Your task to perform on an android device: Open battery settings Image 0: 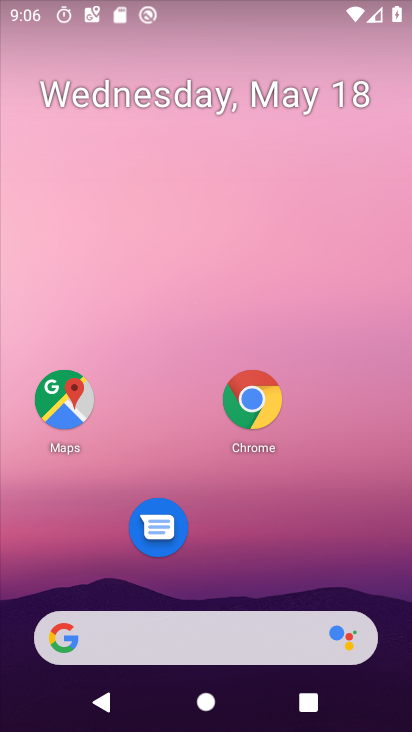
Step 0: drag from (245, 604) to (341, 221)
Your task to perform on an android device: Open battery settings Image 1: 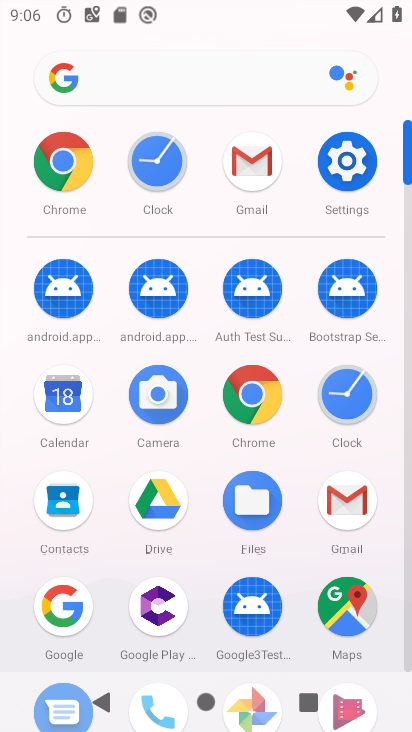
Step 1: click (347, 169)
Your task to perform on an android device: Open battery settings Image 2: 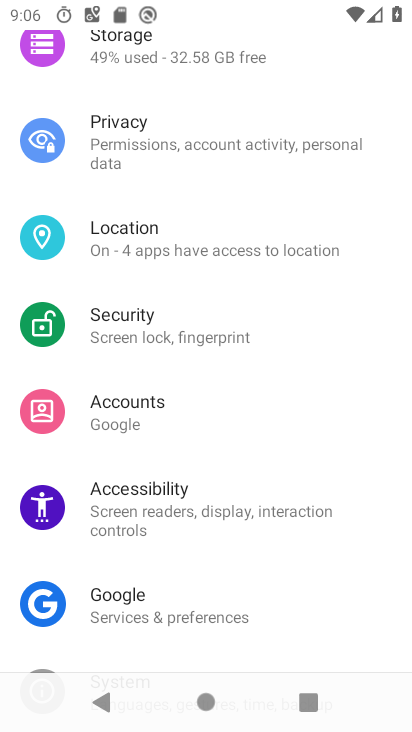
Step 2: drag from (169, 178) to (190, 396)
Your task to perform on an android device: Open battery settings Image 3: 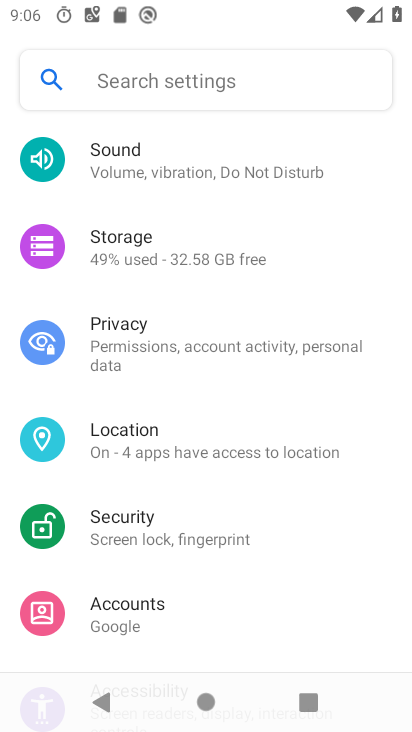
Step 3: drag from (145, 584) to (187, 346)
Your task to perform on an android device: Open battery settings Image 4: 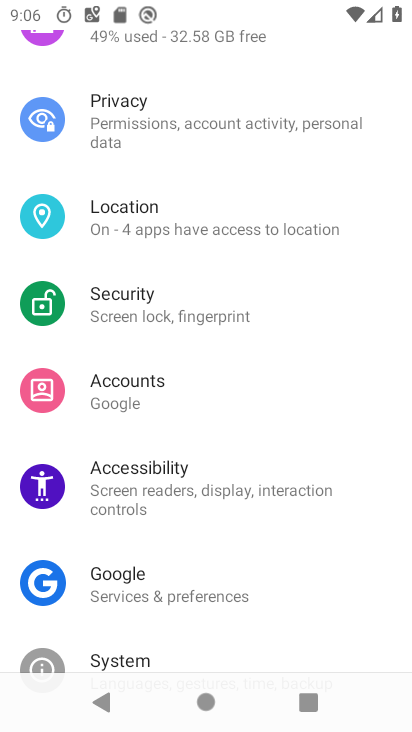
Step 4: drag from (141, 599) to (178, 330)
Your task to perform on an android device: Open battery settings Image 5: 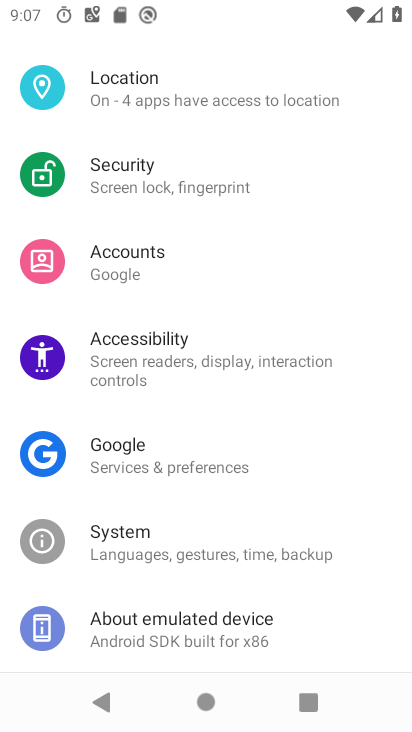
Step 5: drag from (168, 300) to (174, 470)
Your task to perform on an android device: Open battery settings Image 6: 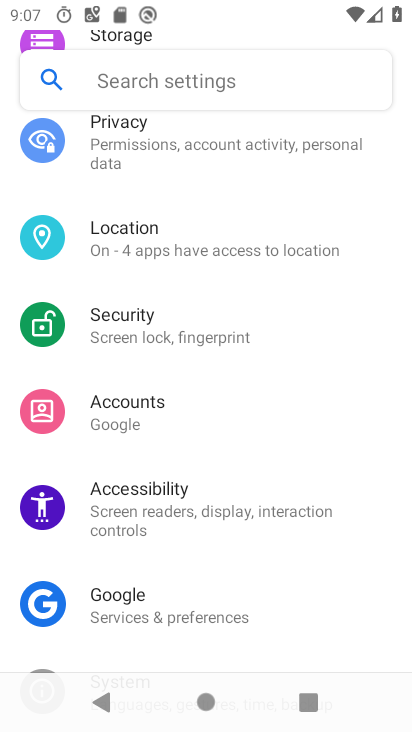
Step 6: drag from (177, 314) to (160, 568)
Your task to perform on an android device: Open battery settings Image 7: 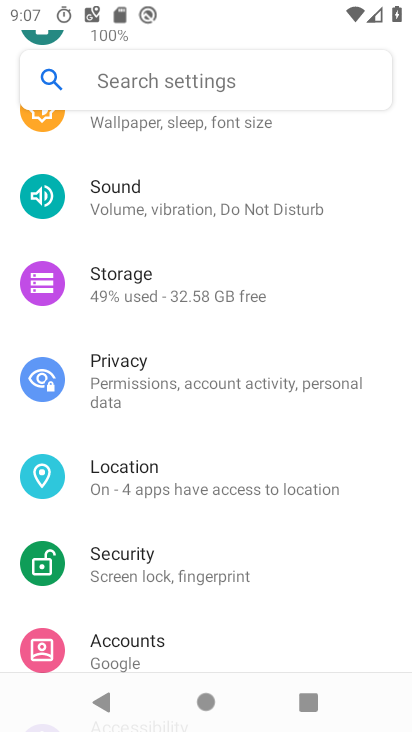
Step 7: drag from (213, 303) to (174, 541)
Your task to perform on an android device: Open battery settings Image 8: 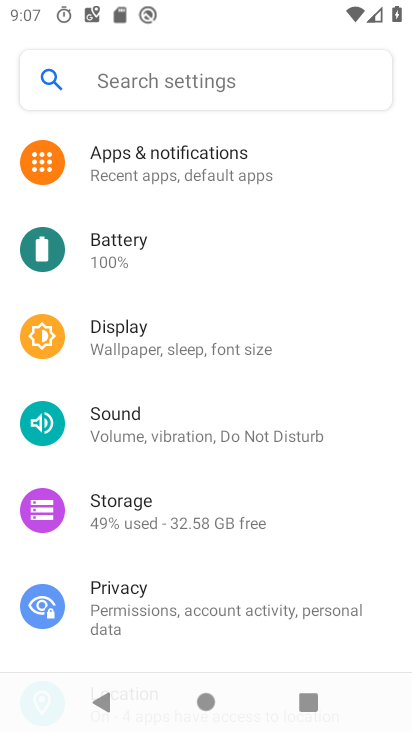
Step 8: click (179, 256)
Your task to perform on an android device: Open battery settings Image 9: 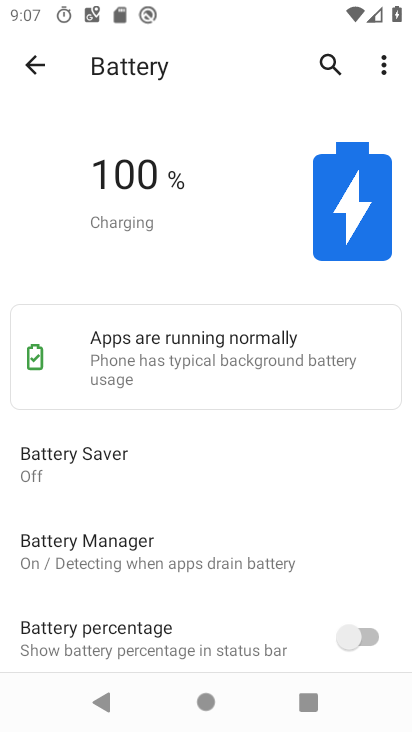
Step 9: task complete